Your task to perform on an android device: Open Chrome and go to the settings page Image 0: 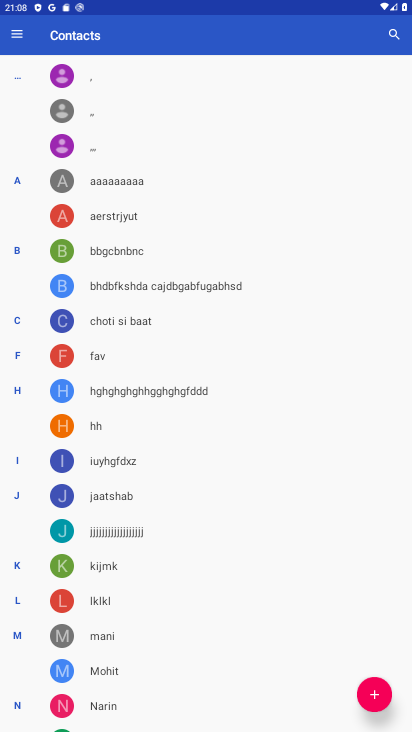
Step 0: press home button
Your task to perform on an android device: Open Chrome and go to the settings page Image 1: 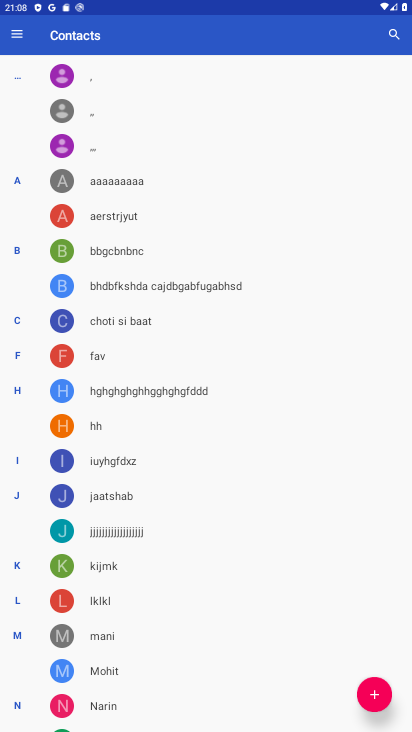
Step 1: press home button
Your task to perform on an android device: Open Chrome and go to the settings page Image 2: 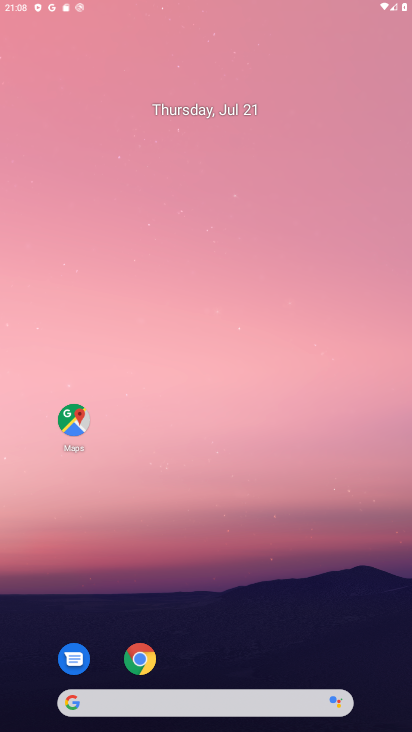
Step 2: drag from (112, 620) to (150, 184)
Your task to perform on an android device: Open Chrome and go to the settings page Image 3: 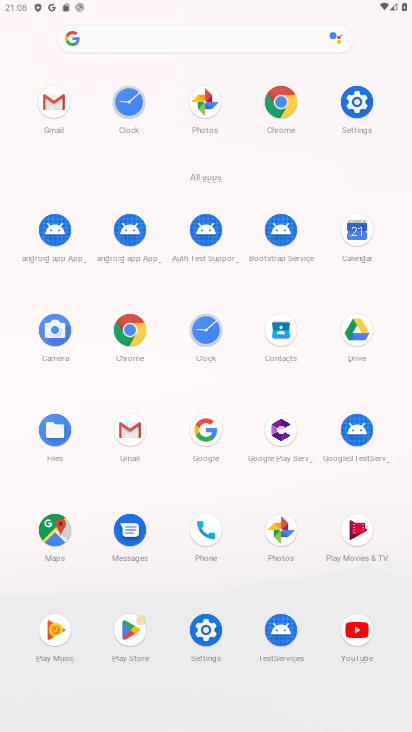
Step 3: click (117, 327)
Your task to perform on an android device: Open Chrome and go to the settings page Image 4: 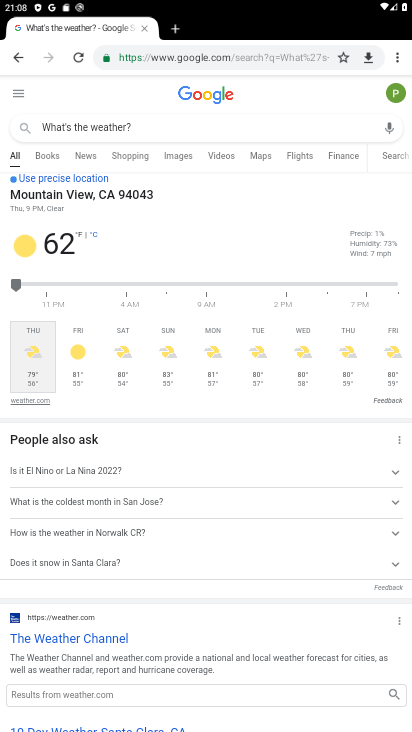
Step 4: task complete